Your task to perform on an android device: open app "Duolingo: language lessons" (install if not already installed) and enter user name: "omens@gmail.com" and password: "casks" Image 0: 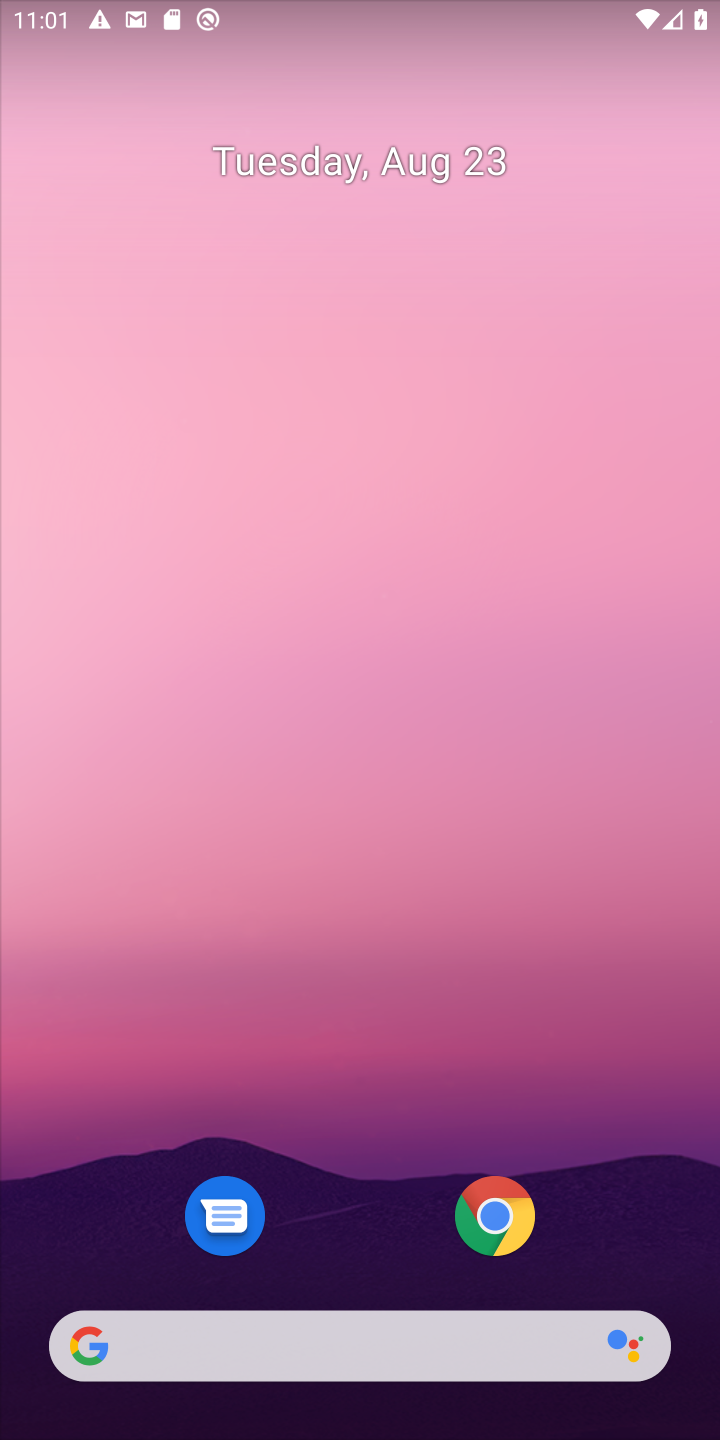
Step 0: drag from (251, 1346) to (399, 180)
Your task to perform on an android device: open app "Duolingo: language lessons" (install if not already installed) and enter user name: "omens@gmail.com" and password: "casks" Image 1: 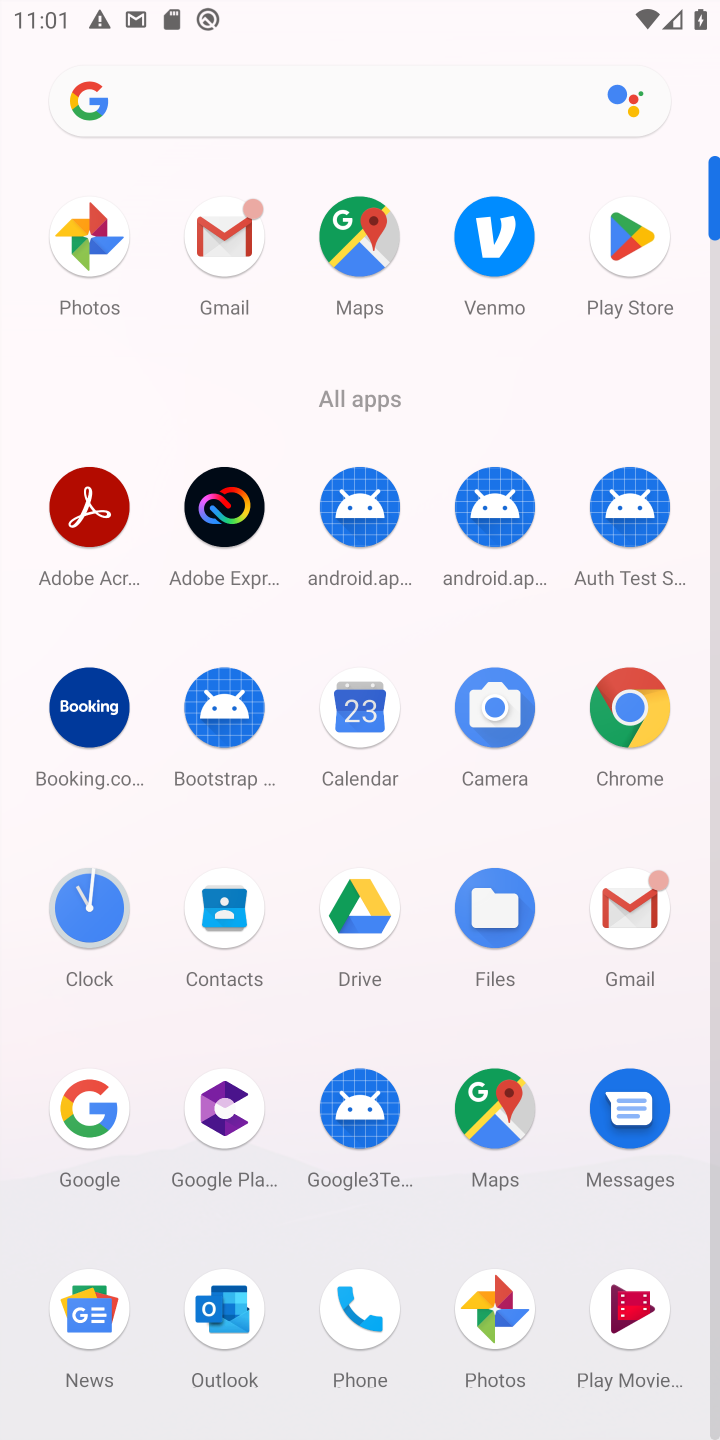
Step 1: click (626, 245)
Your task to perform on an android device: open app "Duolingo: language lessons" (install if not already installed) and enter user name: "omens@gmail.com" and password: "casks" Image 2: 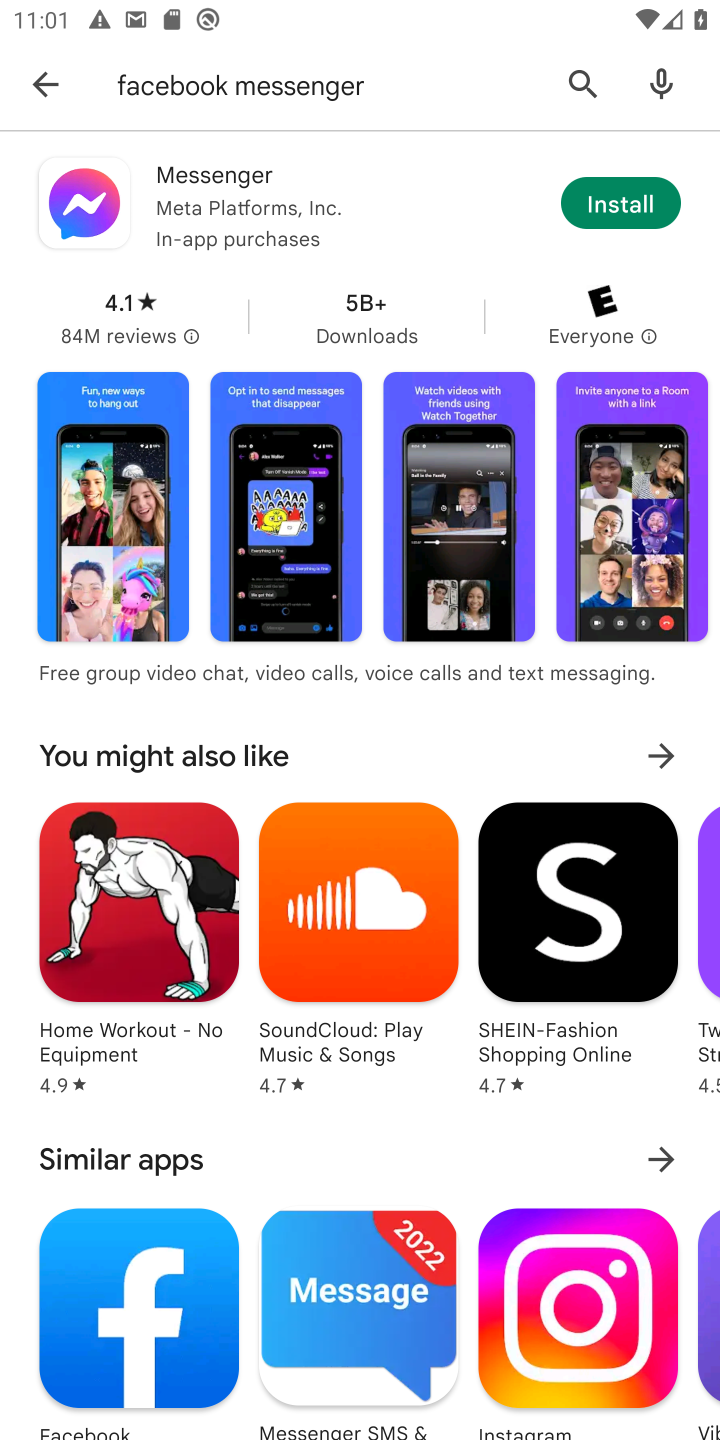
Step 2: press back button
Your task to perform on an android device: open app "Duolingo: language lessons" (install if not already installed) and enter user name: "omens@gmail.com" and password: "casks" Image 3: 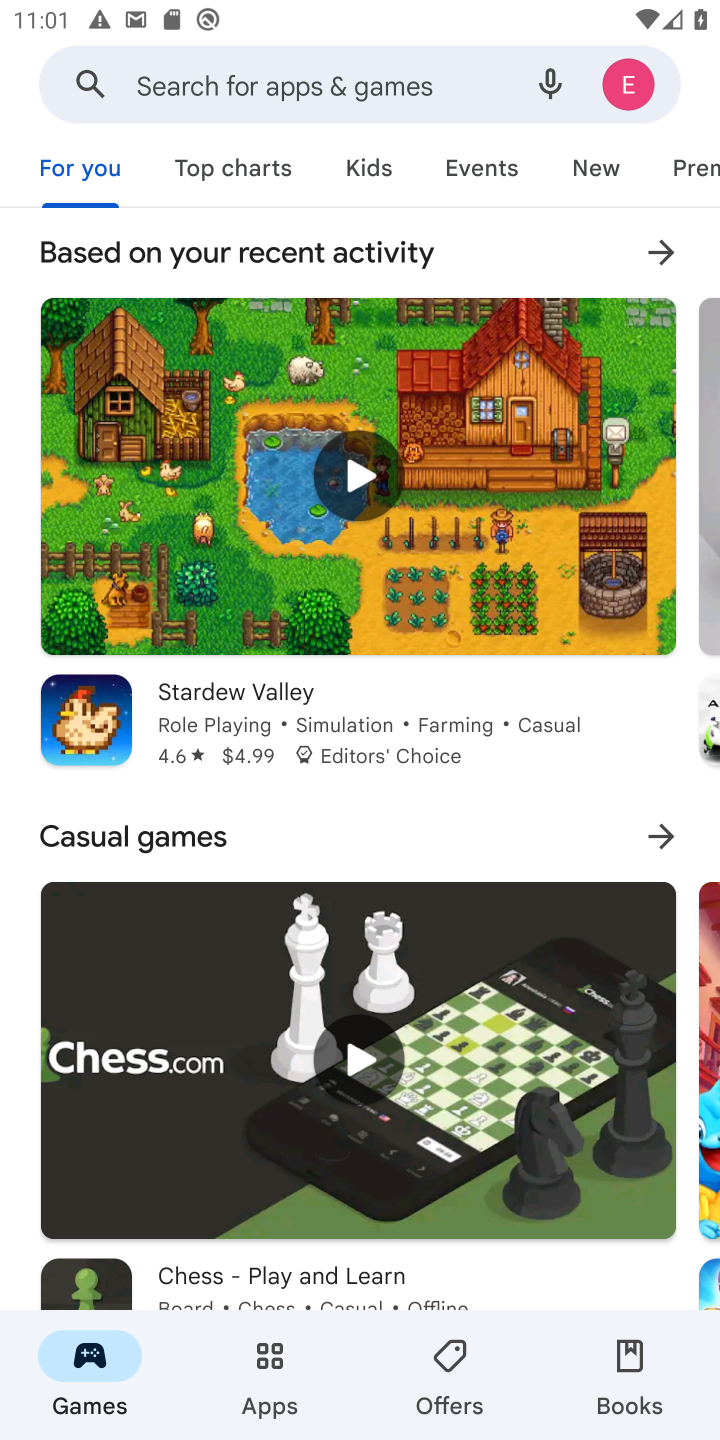
Step 3: click (334, 81)
Your task to perform on an android device: open app "Duolingo: language lessons" (install if not already installed) and enter user name: "omens@gmail.com" and password: "casks" Image 4: 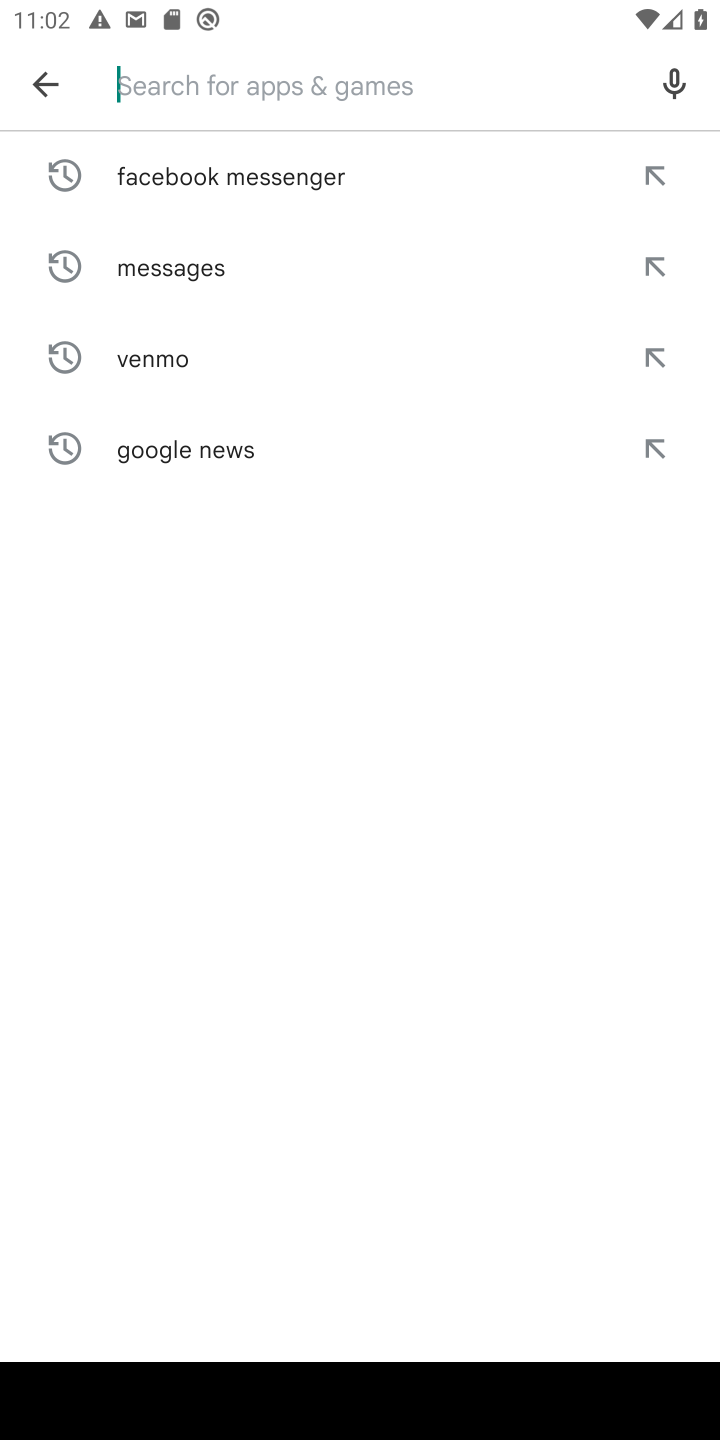
Step 4: type "Duolingo: language lessons"
Your task to perform on an android device: open app "Duolingo: language lessons" (install if not already installed) and enter user name: "omens@gmail.com" and password: "casks" Image 5: 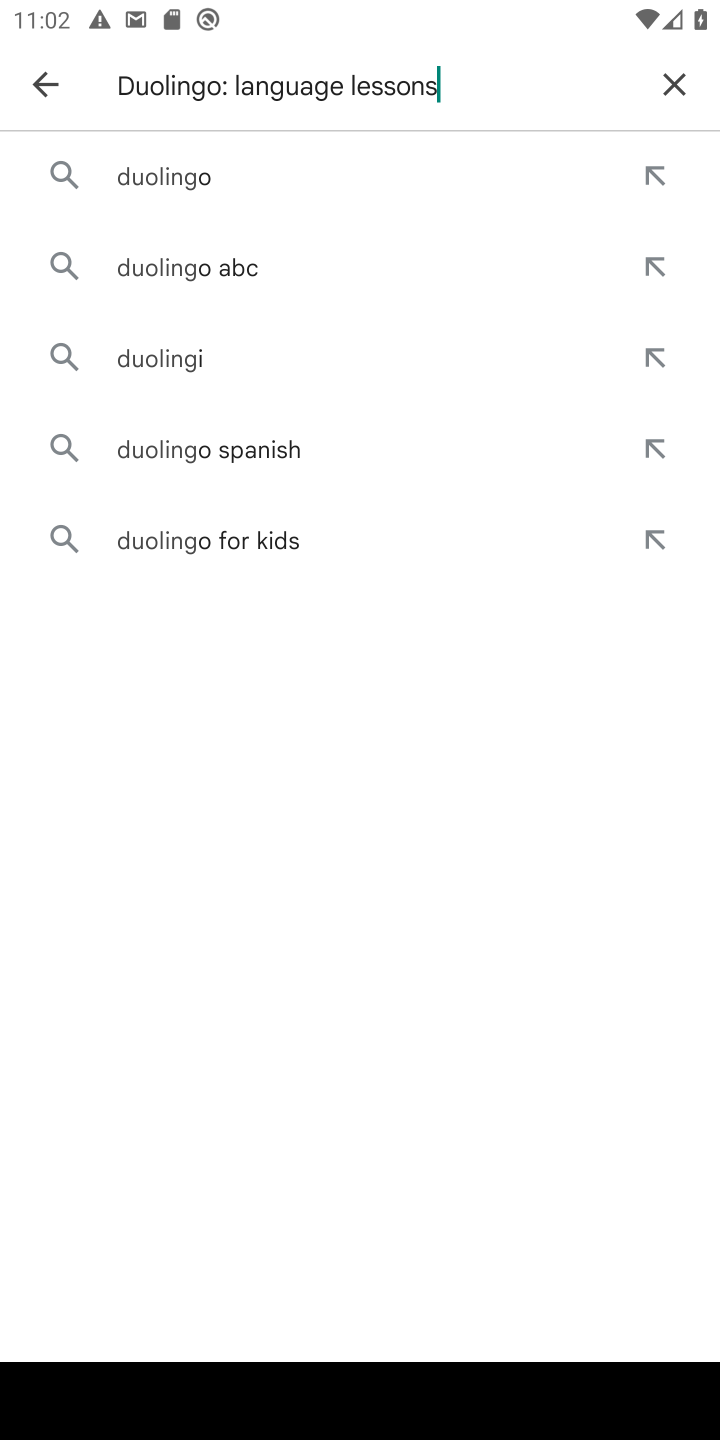
Step 5: type ""
Your task to perform on an android device: open app "Duolingo: language lessons" (install if not already installed) and enter user name: "omens@gmail.com" and password: "casks" Image 6: 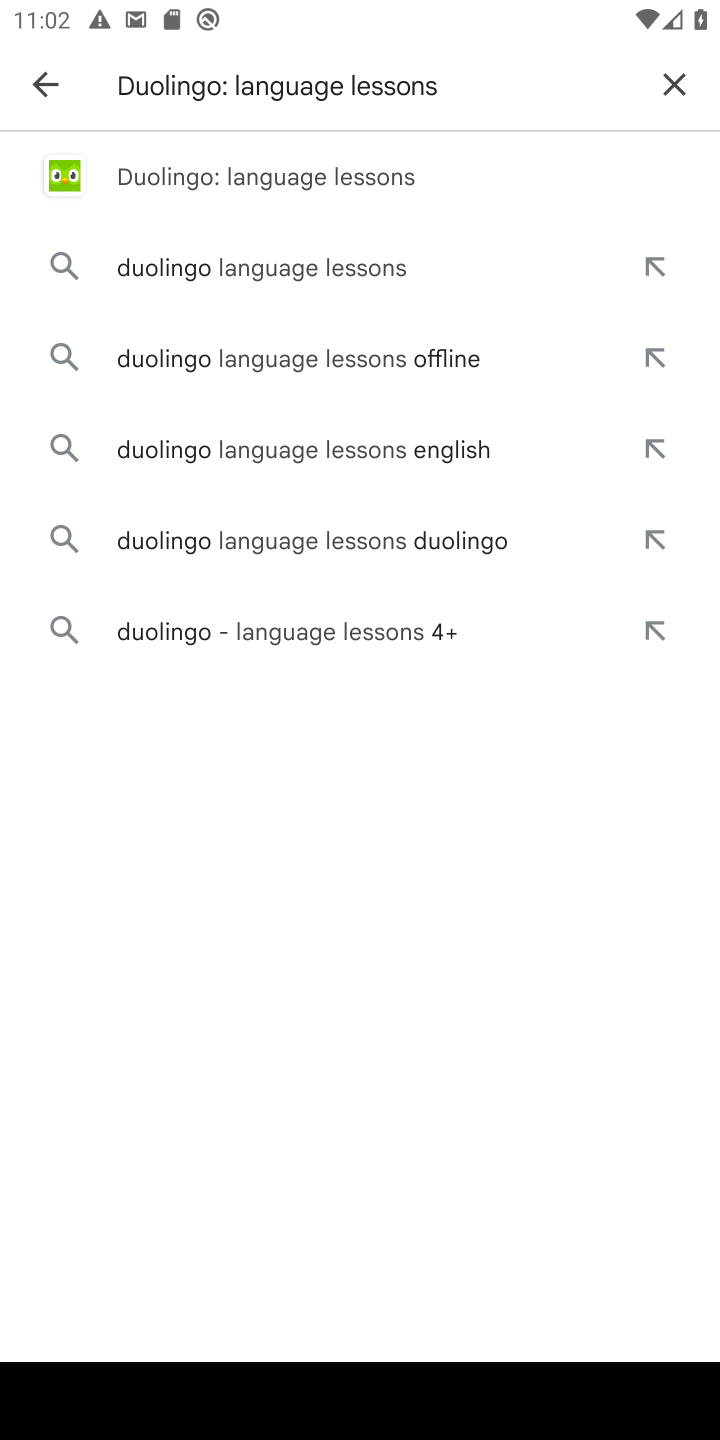
Step 6: click (227, 190)
Your task to perform on an android device: open app "Duolingo: language lessons" (install if not already installed) and enter user name: "omens@gmail.com" and password: "casks" Image 7: 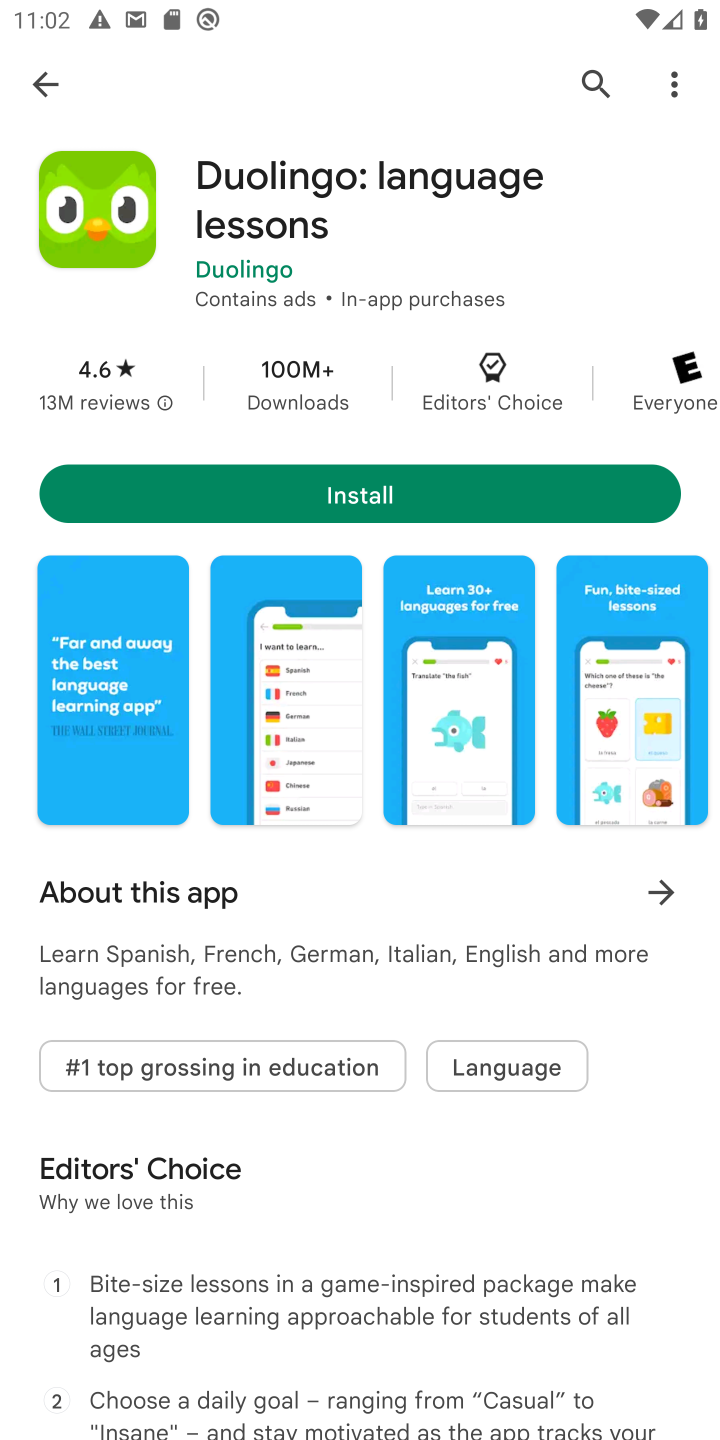
Step 7: click (383, 489)
Your task to perform on an android device: open app "Duolingo: language lessons" (install if not already installed) and enter user name: "omens@gmail.com" and password: "casks" Image 8: 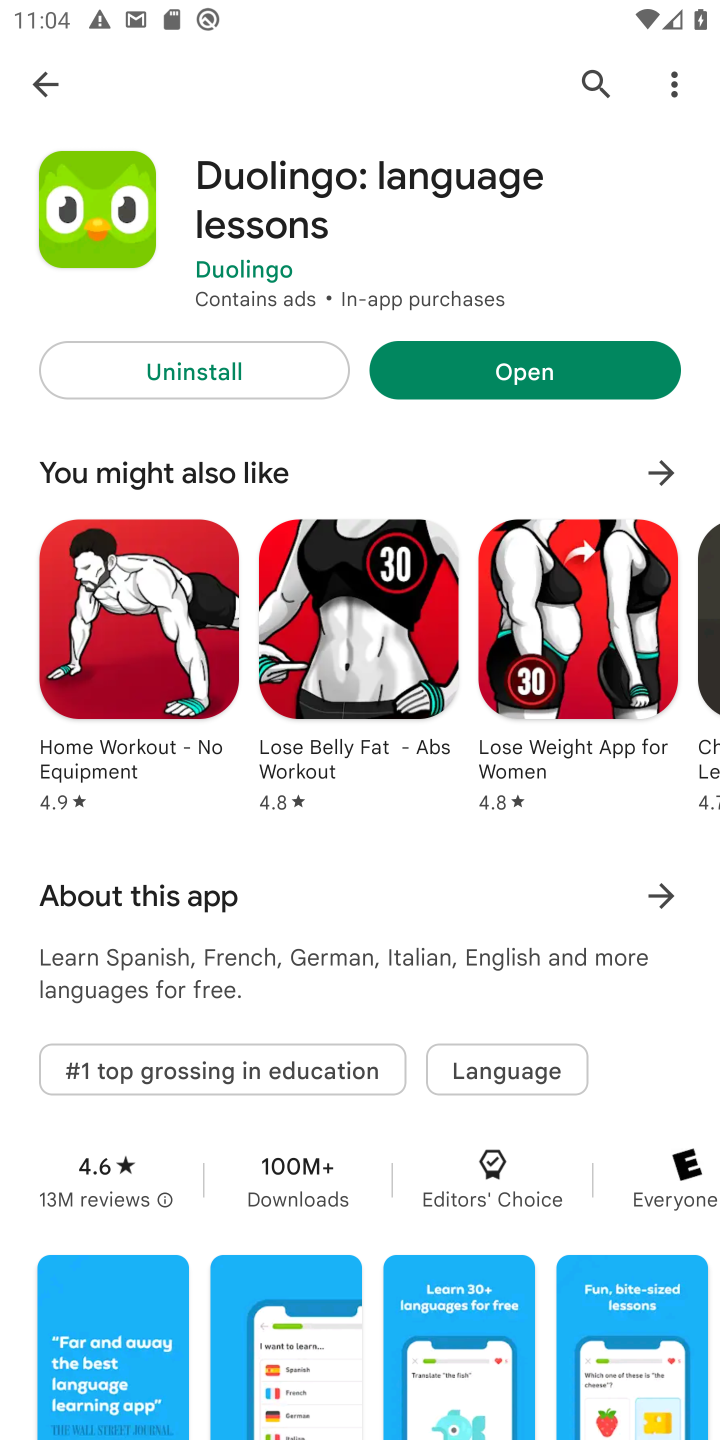
Step 8: click (544, 369)
Your task to perform on an android device: open app "Duolingo: language lessons" (install if not already installed) and enter user name: "omens@gmail.com" and password: "casks" Image 9: 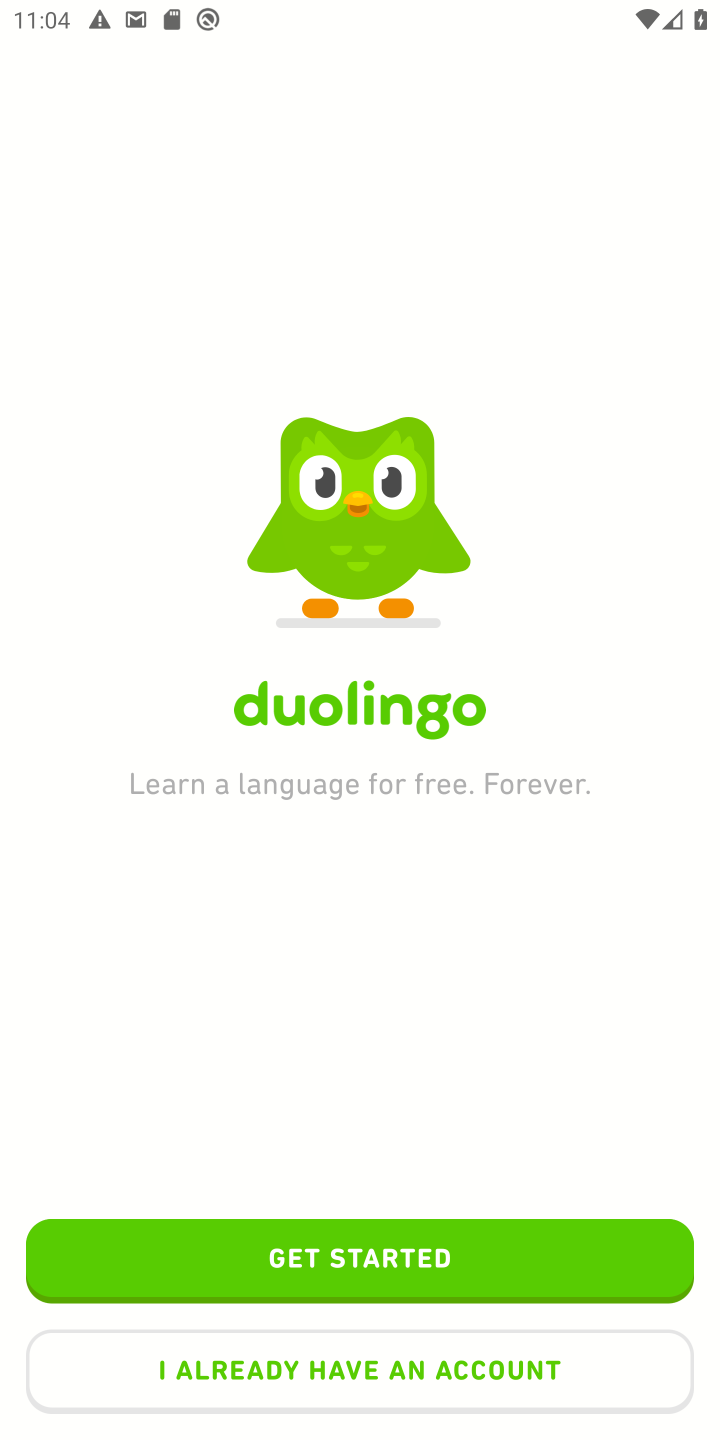
Step 9: click (317, 1354)
Your task to perform on an android device: open app "Duolingo: language lessons" (install if not already installed) and enter user name: "omens@gmail.com" and password: "casks" Image 10: 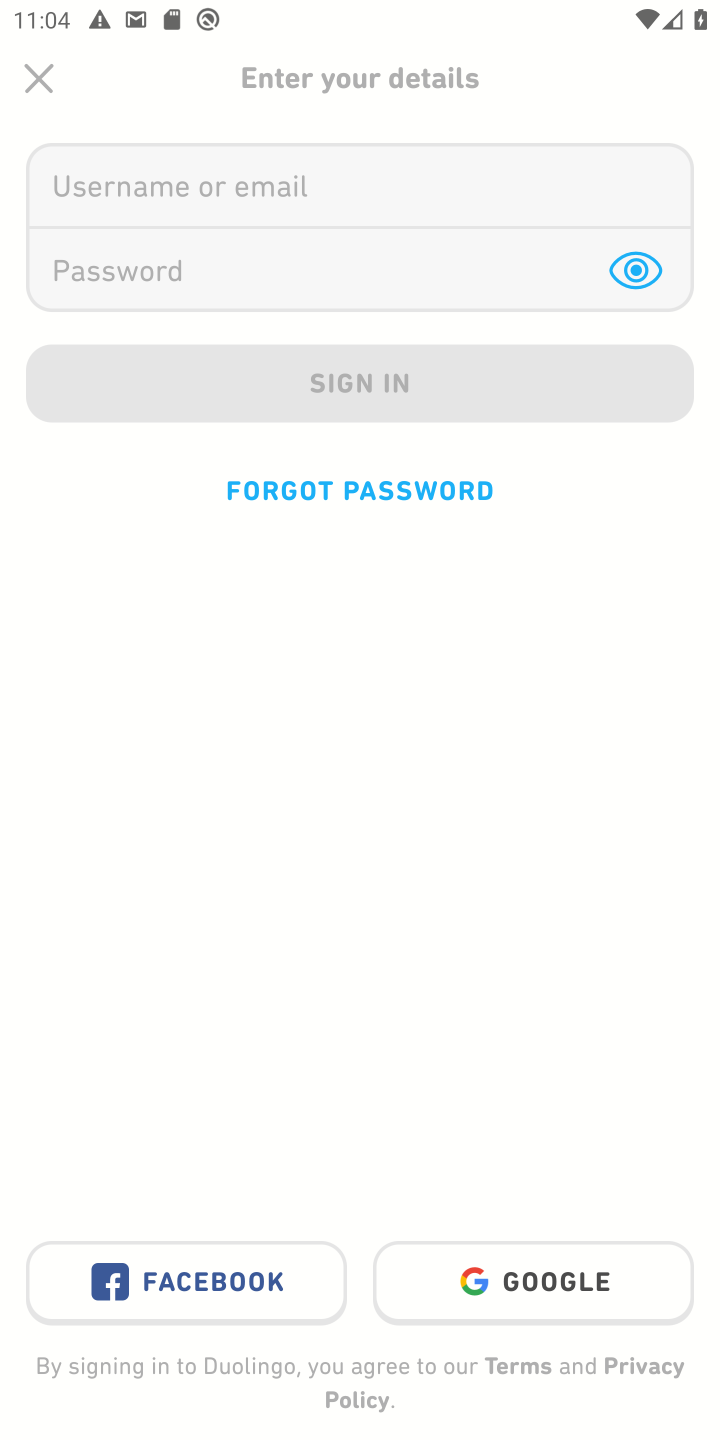
Step 10: click (260, 198)
Your task to perform on an android device: open app "Duolingo: language lessons" (install if not already installed) and enter user name: "omens@gmail.com" and password: "casks" Image 11: 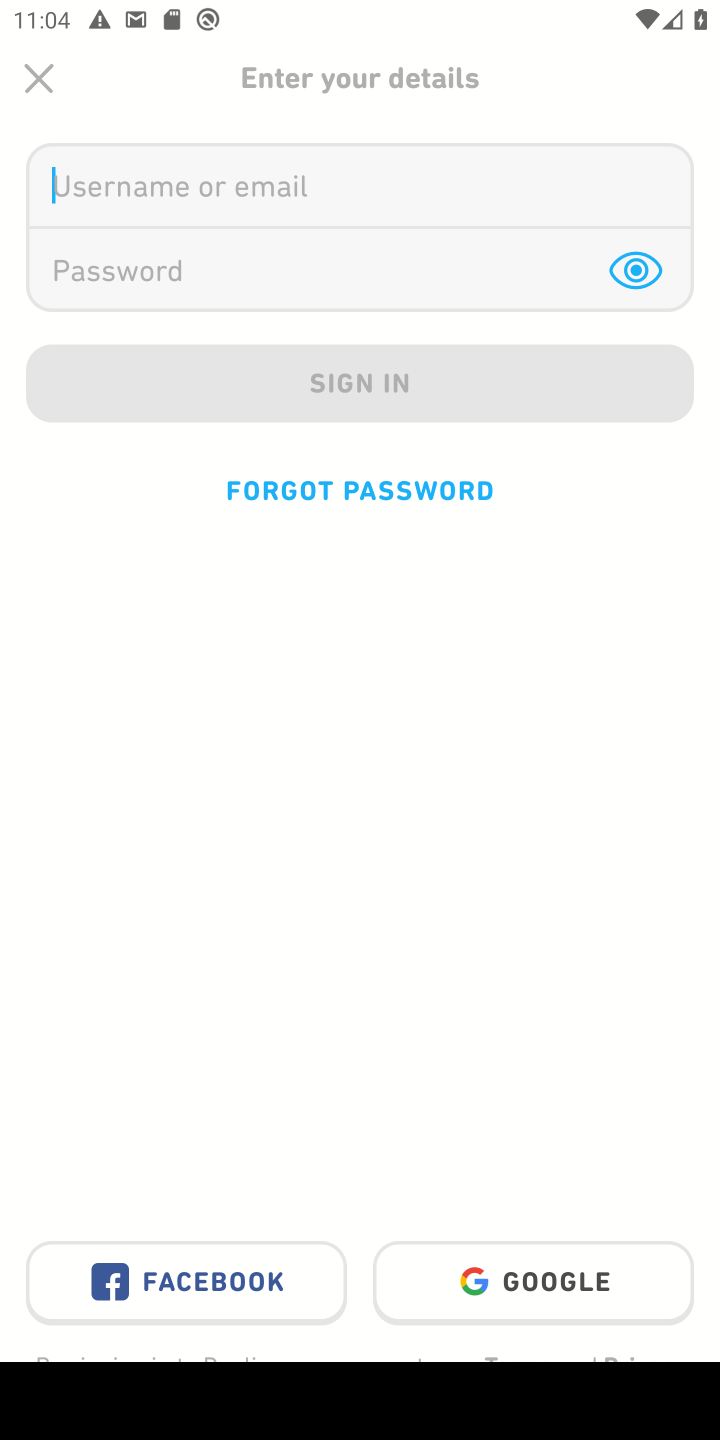
Step 11: type "omens@gmail.com"
Your task to perform on an android device: open app "Duolingo: language lessons" (install if not already installed) and enter user name: "omens@gmail.com" and password: "casks" Image 12: 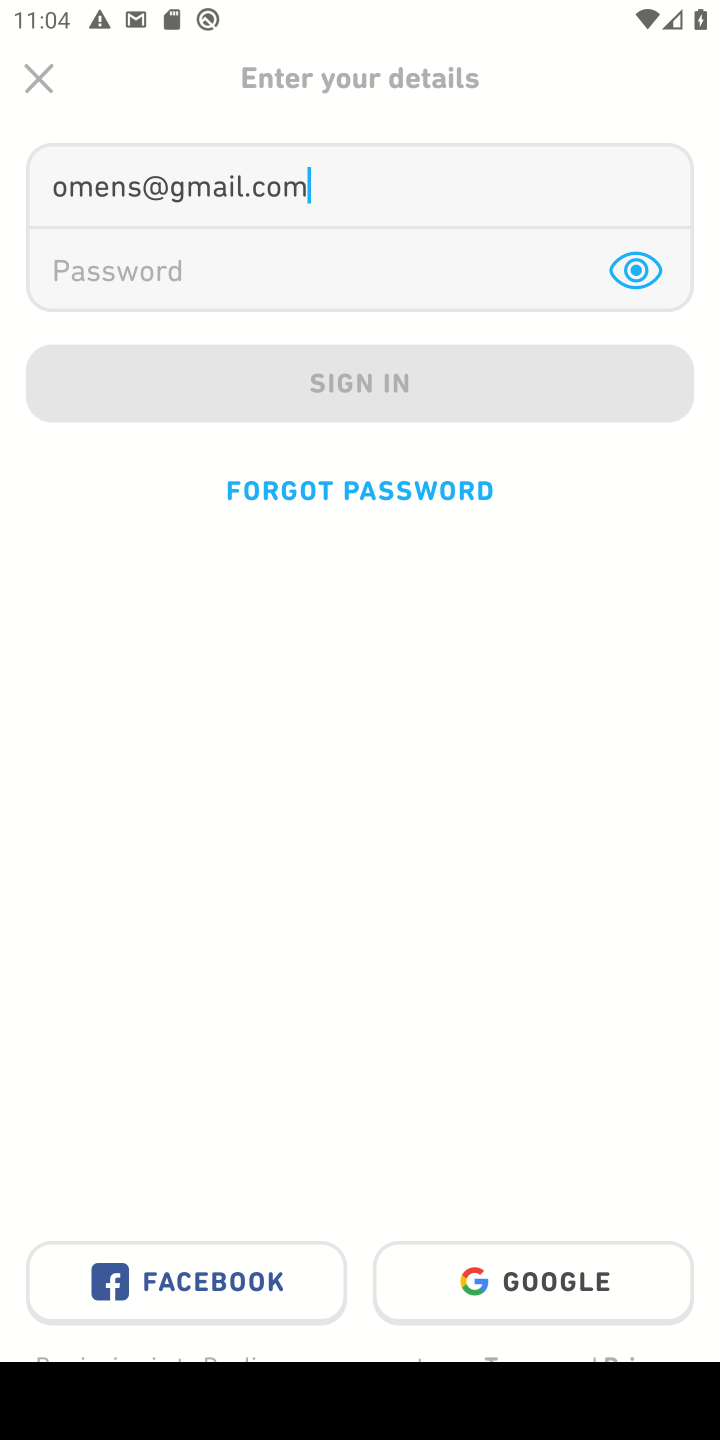
Step 12: click (360, 281)
Your task to perform on an android device: open app "Duolingo: language lessons" (install if not already installed) and enter user name: "omens@gmail.com" and password: "casks" Image 13: 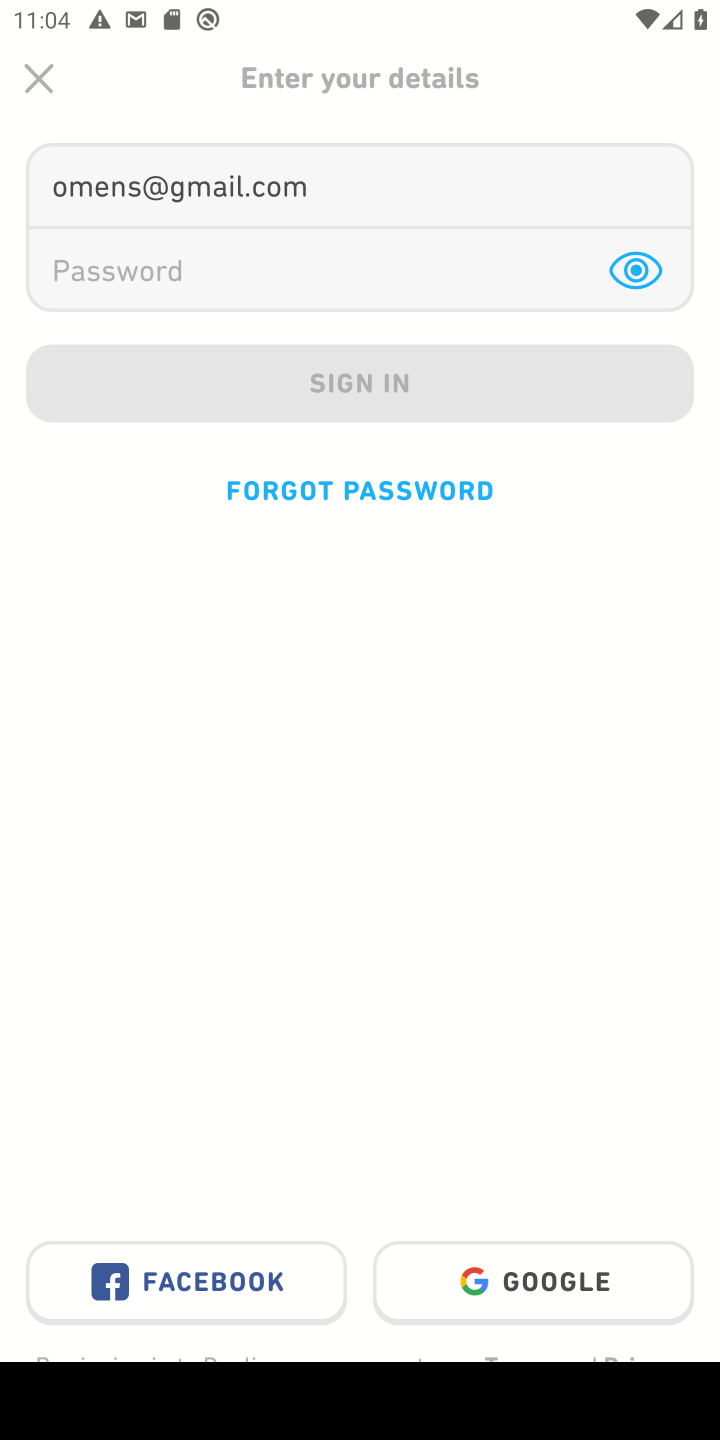
Step 13: type "casks"
Your task to perform on an android device: open app "Duolingo: language lessons" (install if not already installed) and enter user name: "omens@gmail.com" and password: "casks" Image 14: 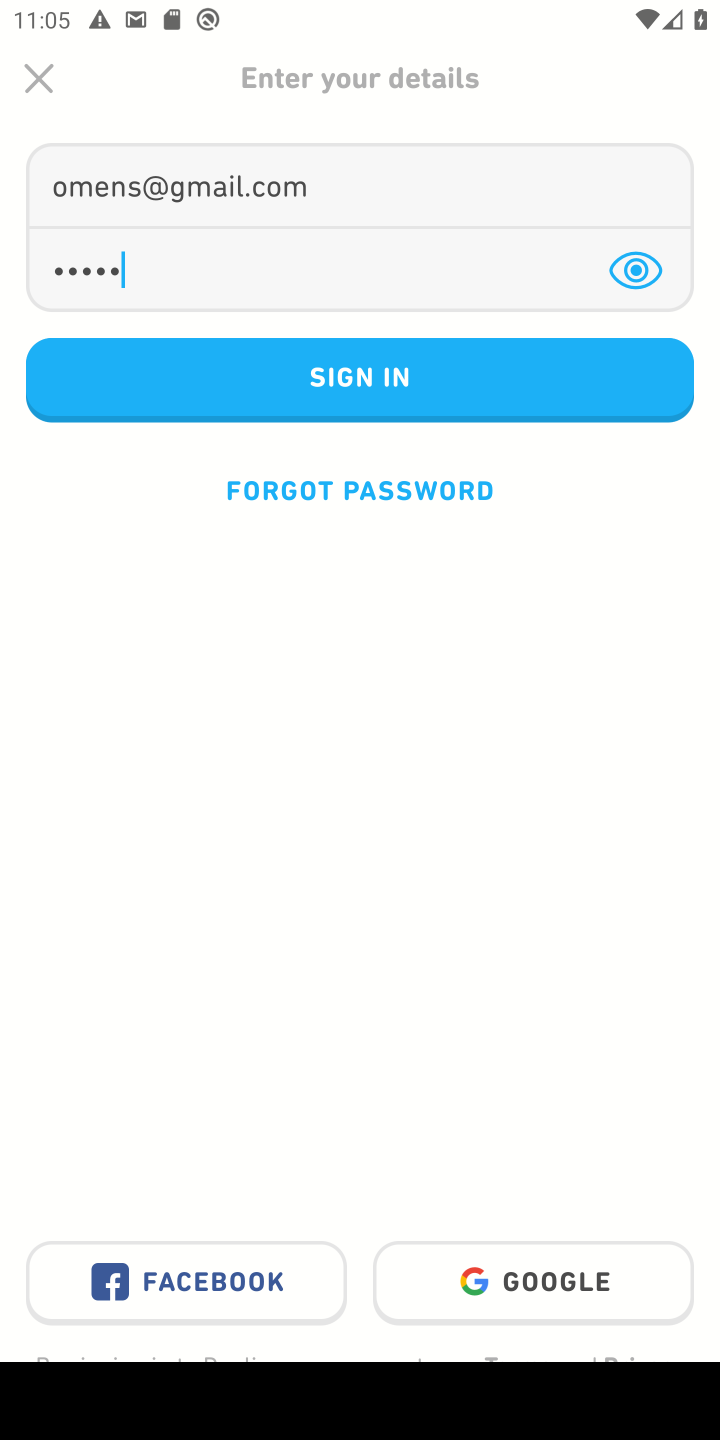
Step 14: task complete